Your task to perform on an android device: star an email in the gmail app Image 0: 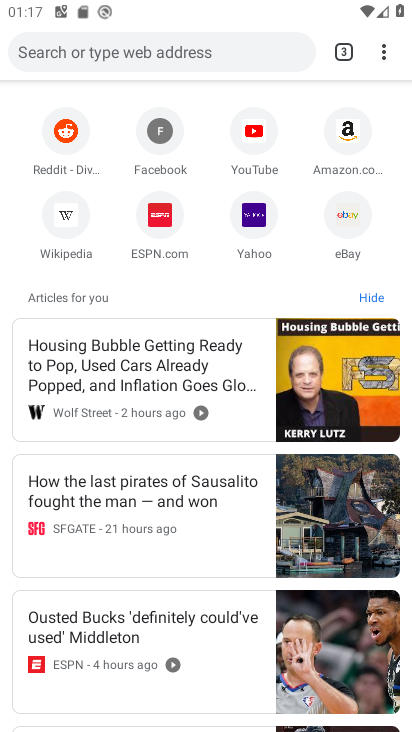
Step 0: press home button
Your task to perform on an android device: star an email in the gmail app Image 1: 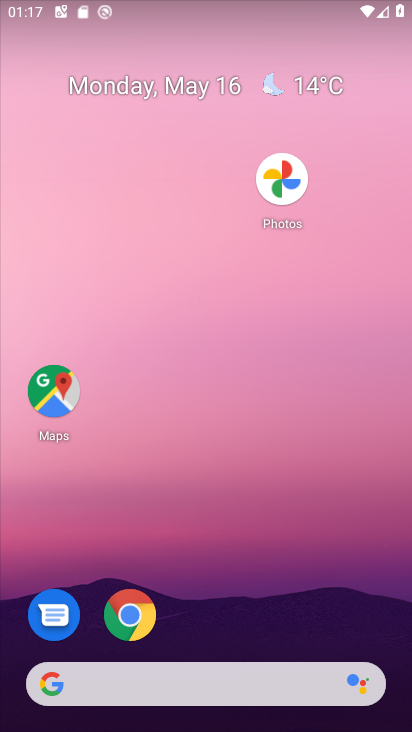
Step 1: drag from (376, 622) to (375, 204)
Your task to perform on an android device: star an email in the gmail app Image 2: 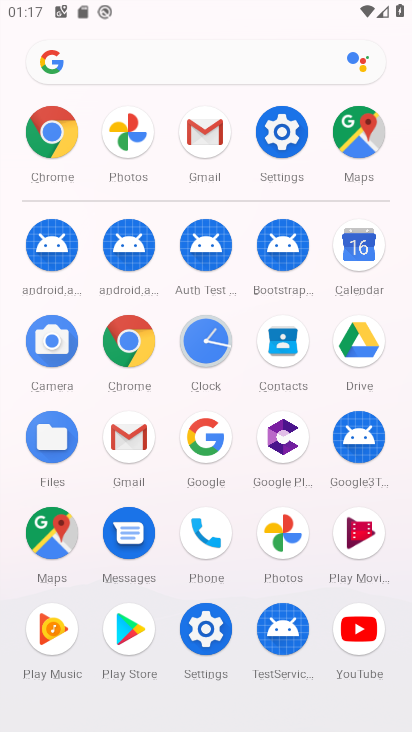
Step 2: click (129, 448)
Your task to perform on an android device: star an email in the gmail app Image 3: 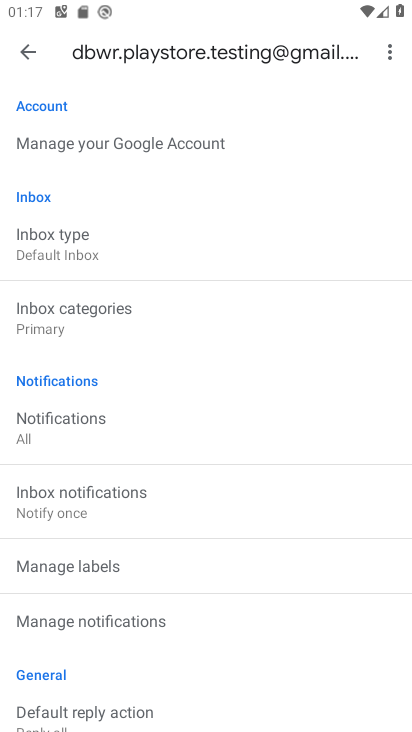
Step 3: click (25, 52)
Your task to perform on an android device: star an email in the gmail app Image 4: 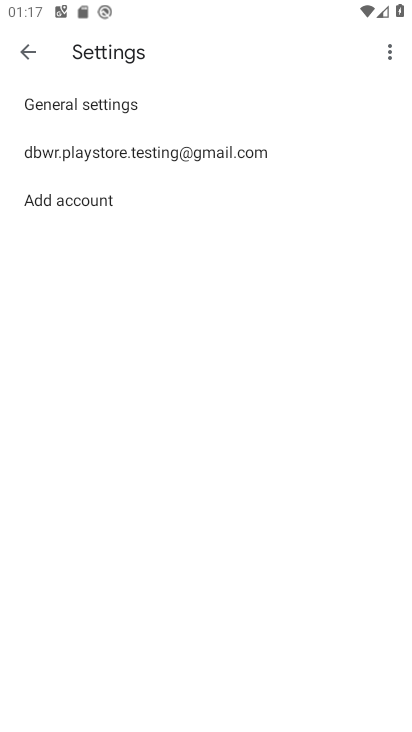
Step 4: click (25, 52)
Your task to perform on an android device: star an email in the gmail app Image 5: 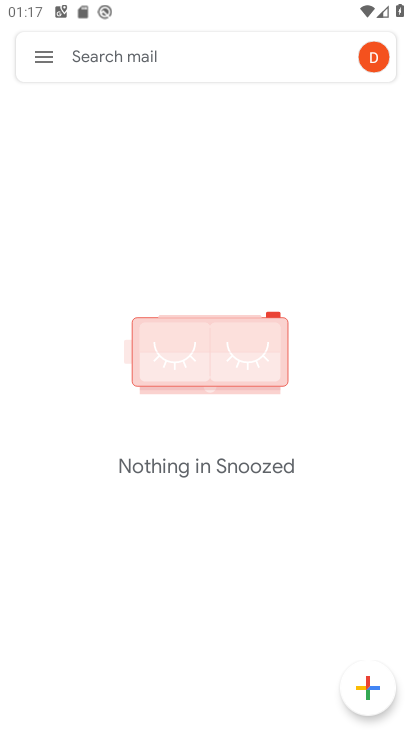
Step 5: click (24, 53)
Your task to perform on an android device: star an email in the gmail app Image 6: 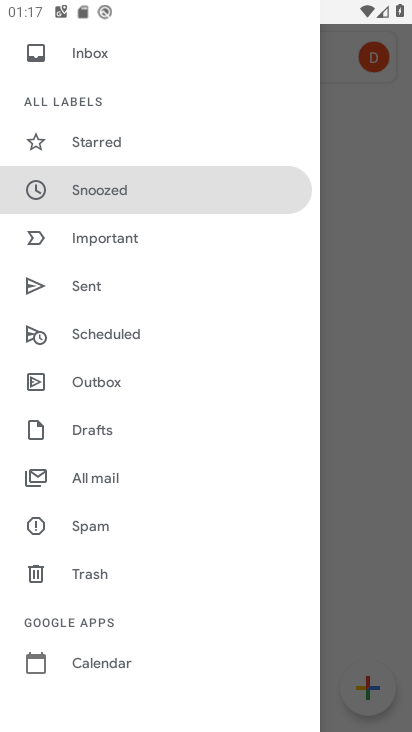
Step 6: click (155, 146)
Your task to perform on an android device: star an email in the gmail app Image 7: 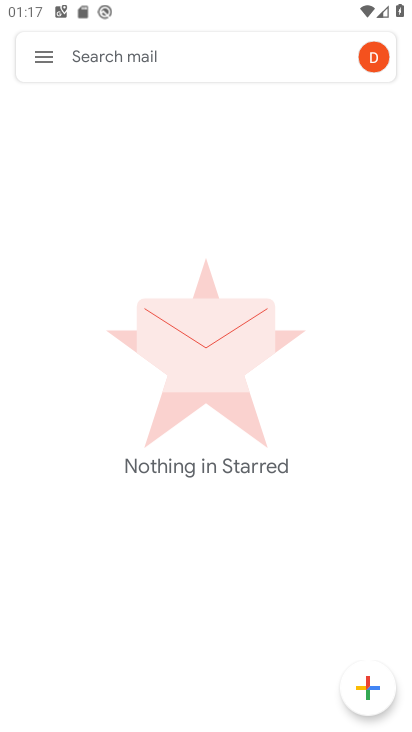
Step 7: task complete